Your task to perform on an android device: Open Yahoo.com Image 0: 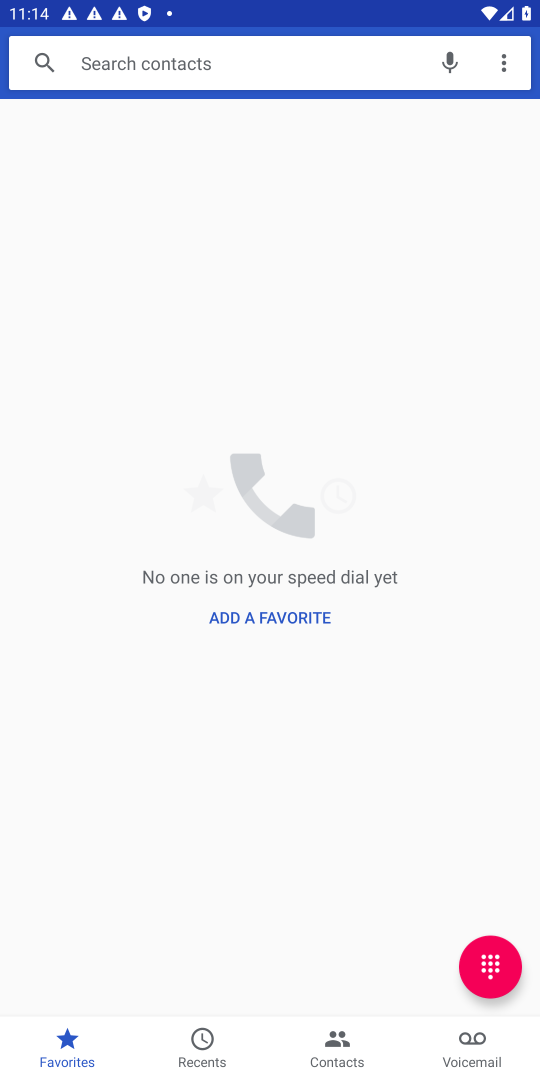
Step 0: press home button
Your task to perform on an android device: Open Yahoo.com Image 1: 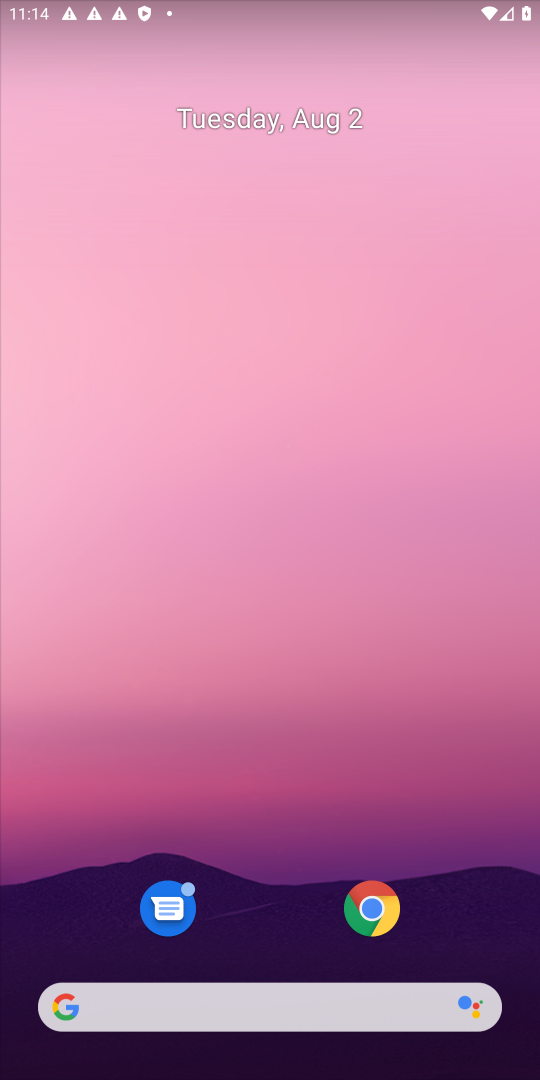
Step 1: drag from (274, 888) to (354, 28)
Your task to perform on an android device: Open Yahoo.com Image 2: 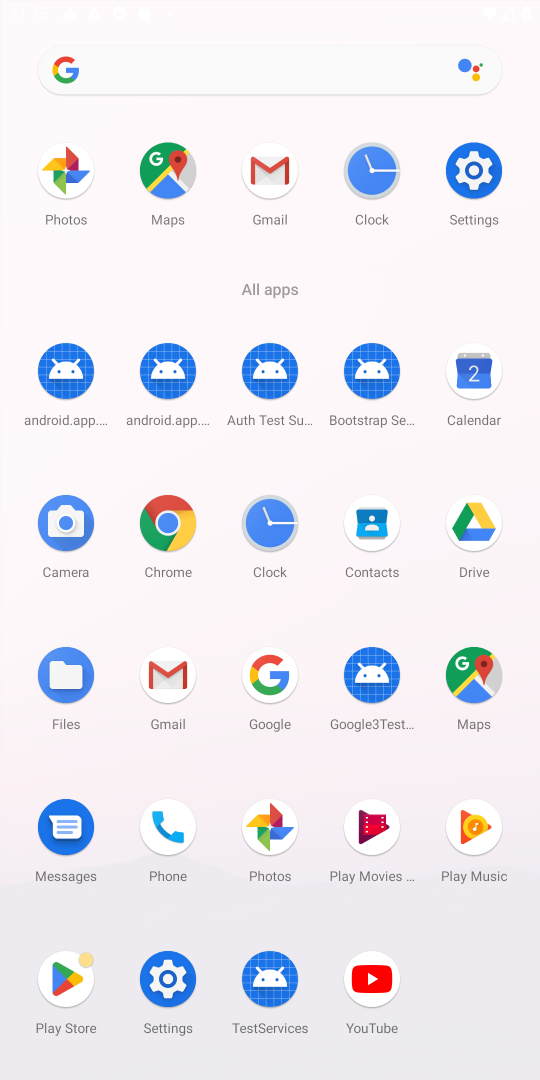
Step 2: click (170, 512)
Your task to perform on an android device: Open Yahoo.com Image 3: 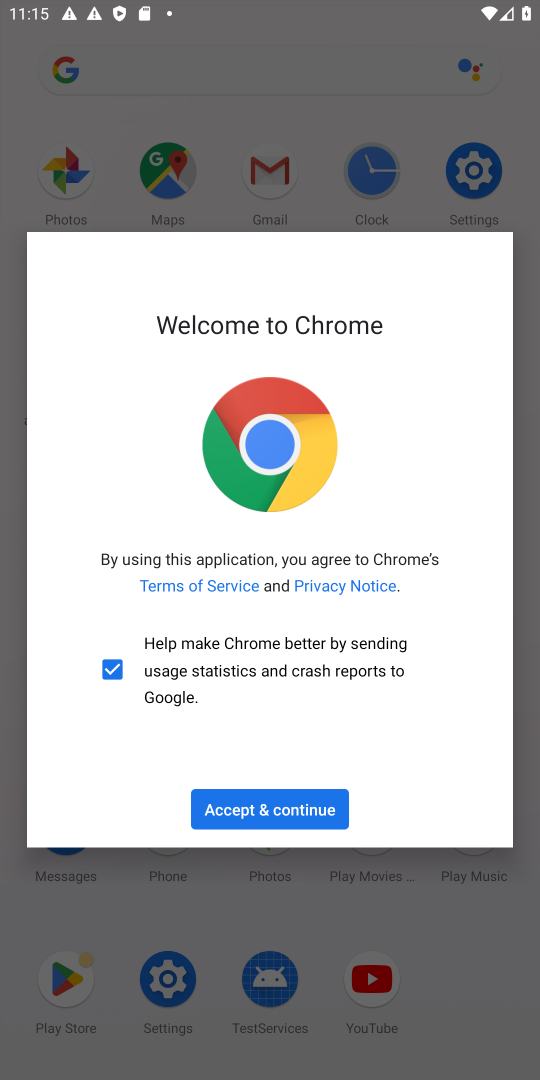
Step 3: click (265, 808)
Your task to perform on an android device: Open Yahoo.com Image 4: 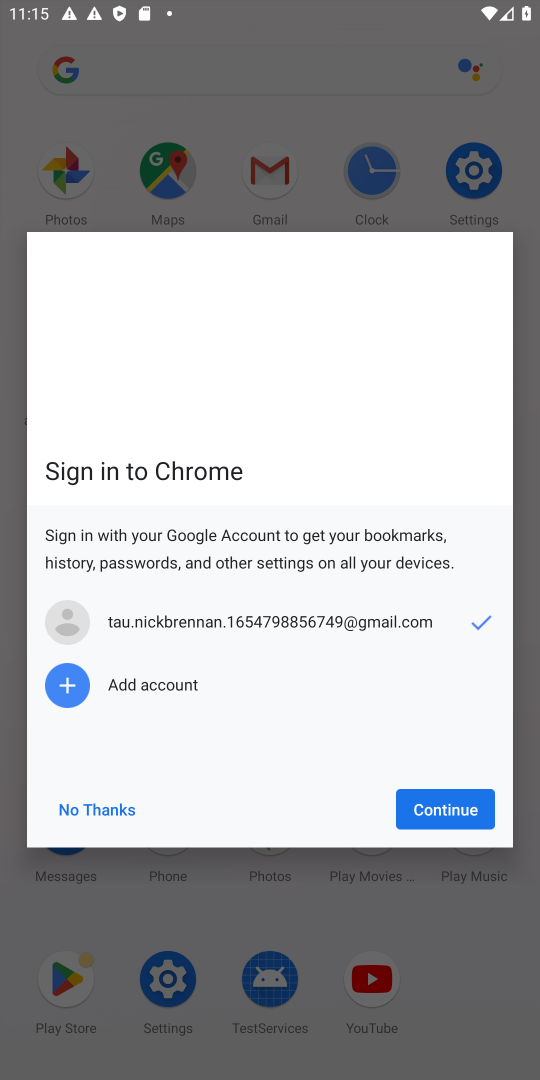
Step 4: click (422, 806)
Your task to perform on an android device: Open Yahoo.com Image 5: 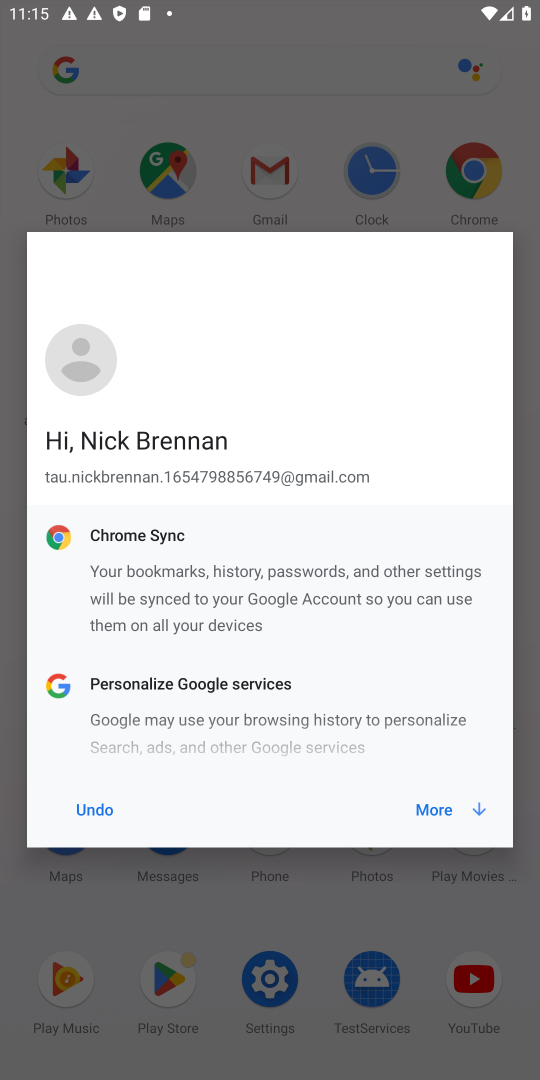
Step 5: click (436, 808)
Your task to perform on an android device: Open Yahoo.com Image 6: 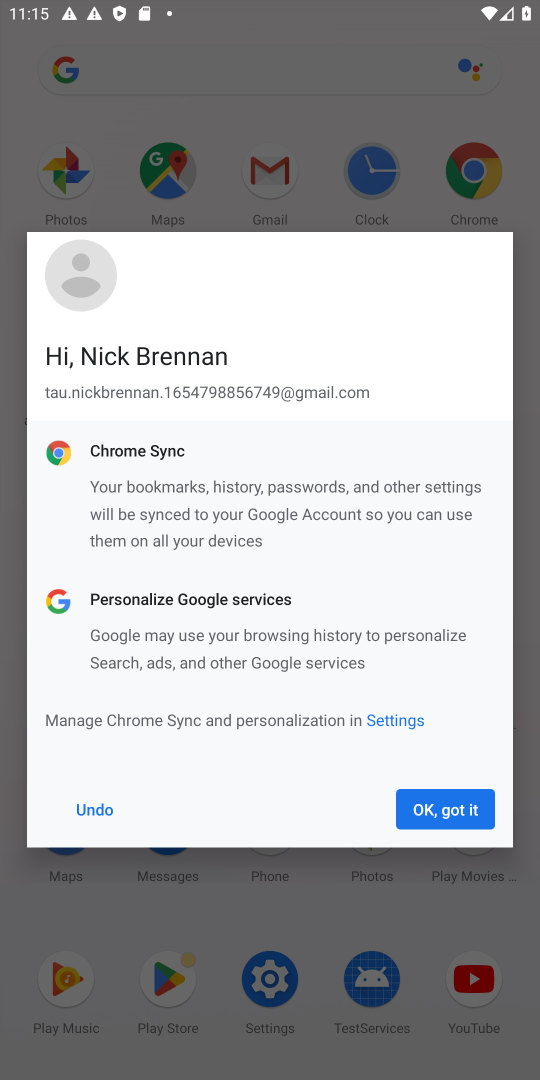
Step 6: click (446, 807)
Your task to perform on an android device: Open Yahoo.com Image 7: 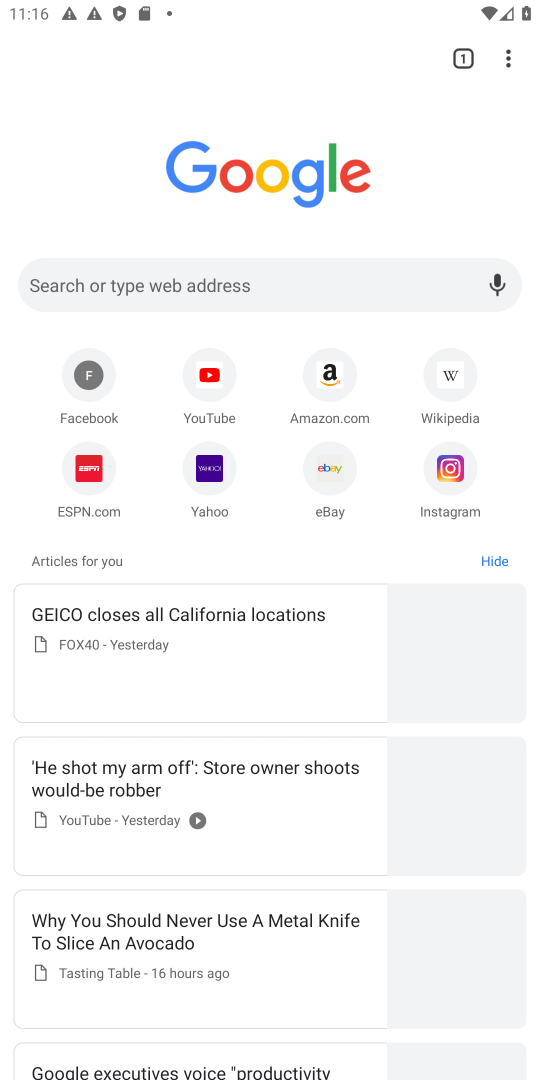
Step 7: click (201, 461)
Your task to perform on an android device: Open Yahoo.com Image 8: 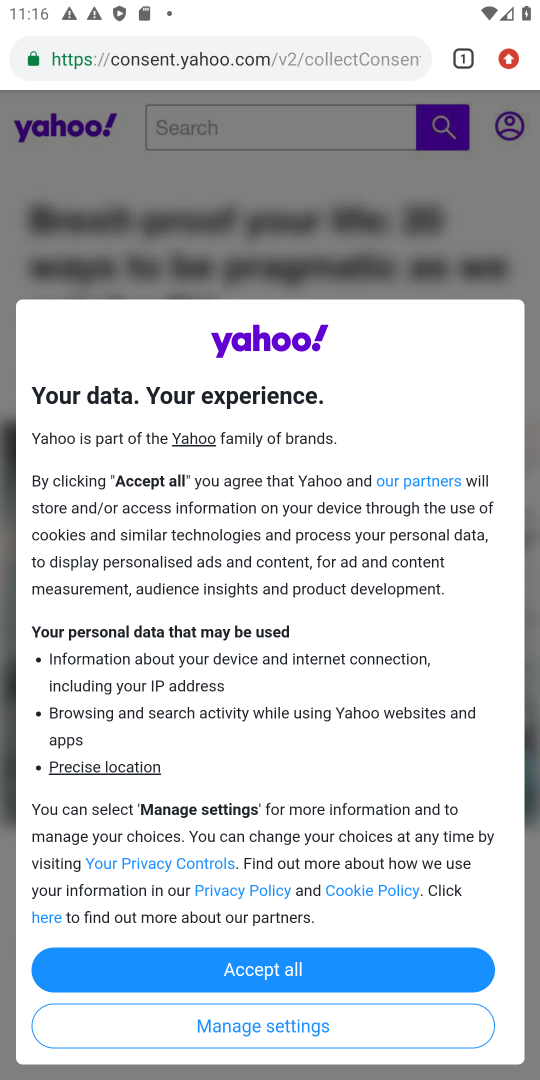
Step 8: click (275, 968)
Your task to perform on an android device: Open Yahoo.com Image 9: 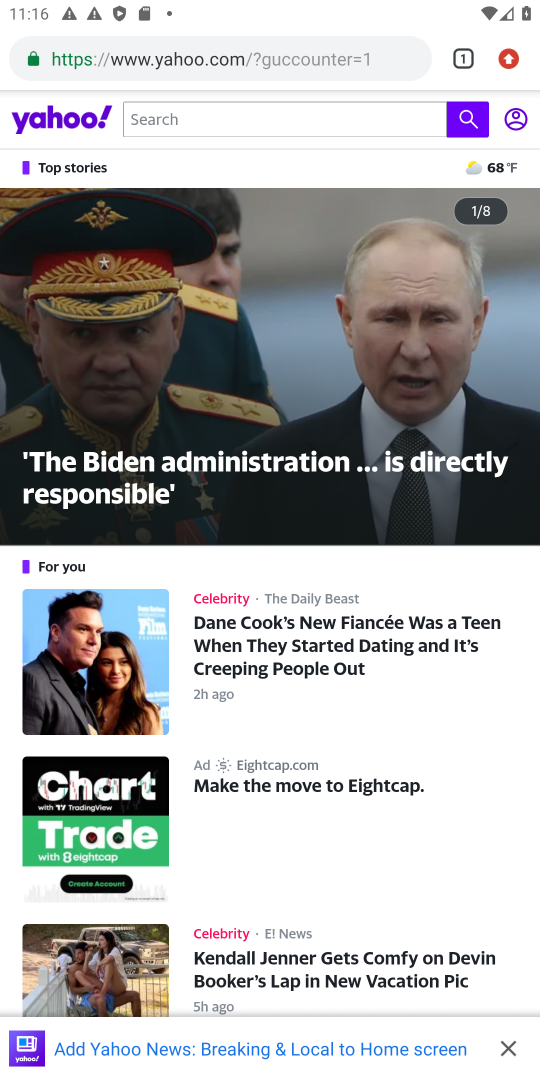
Step 9: task complete